Your task to perform on an android device: Go to accessibility settings Image 0: 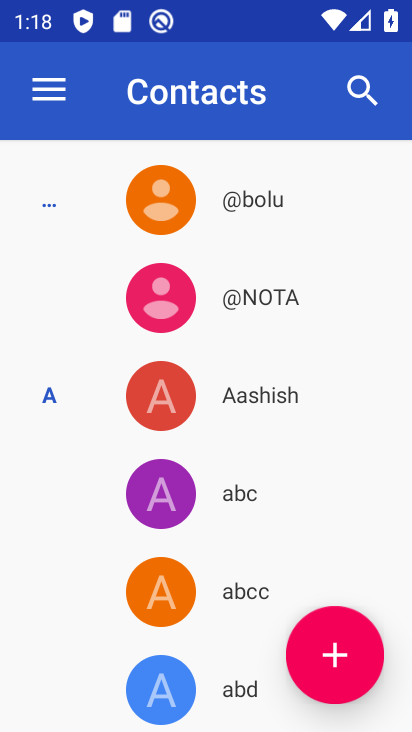
Step 0: drag from (190, 551) to (306, 140)
Your task to perform on an android device: Go to accessibility settings Image 1: 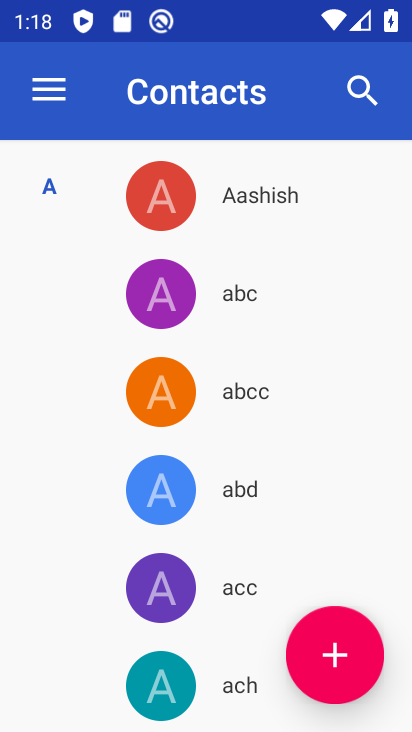
Step 1: press home button
Your task to perform on an android device: Go to accessibility settings Image 2: 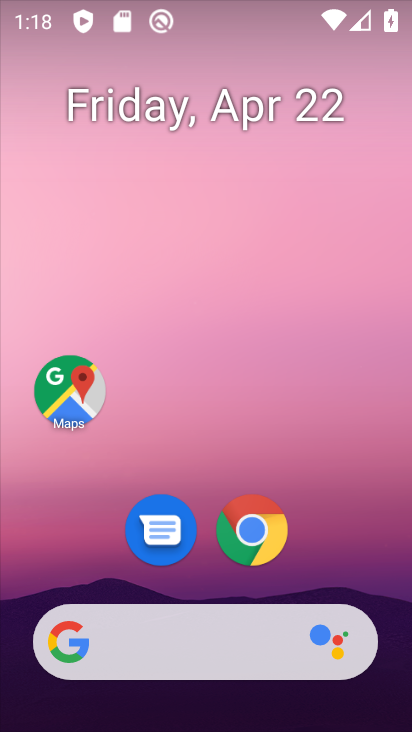
Step 2: drag from (174, 638) to (302, 99)
Your task to perform on an android device: Go to accessibility settings Image 3: 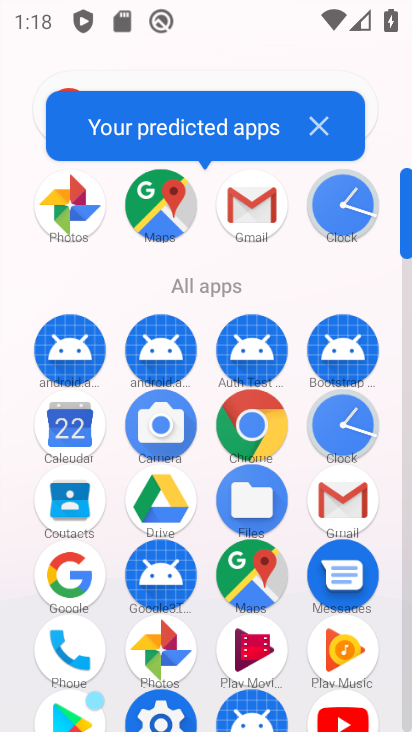
Step 3: drag from (255, 644) to (172, 205)
Your task to perform on an android device: Go to accessibility settings Image 4: 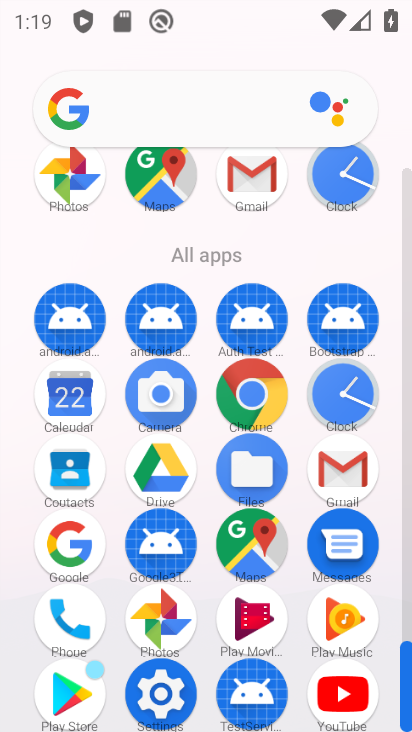
Step 4: click (174, 681)
Your task to perform on an android device: Go to accessibility settings Image 5: 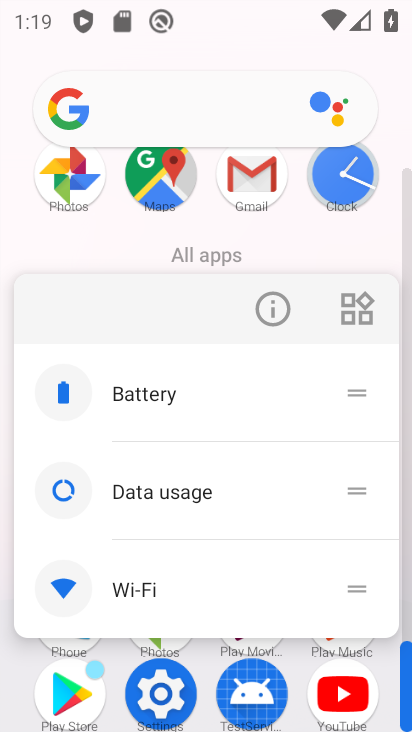
Step 5: click (150, 697)
Your task to perform on an android device: Go to accessibility settings Image 6: 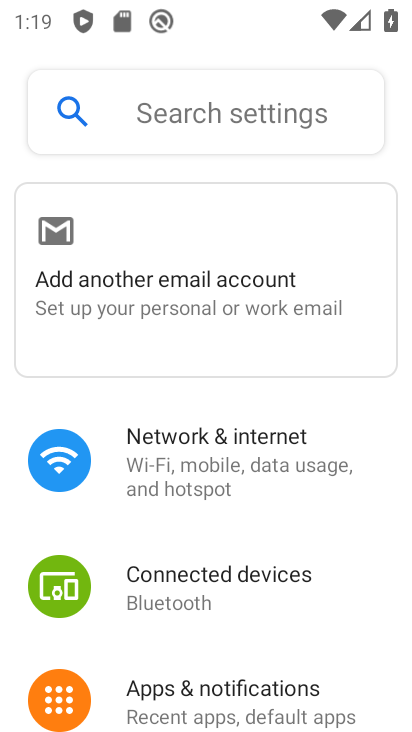
Step 6: drag from (281, 650) to (300, 150)
Your task to perform on an android device: Go to accessibility settings Image 7: 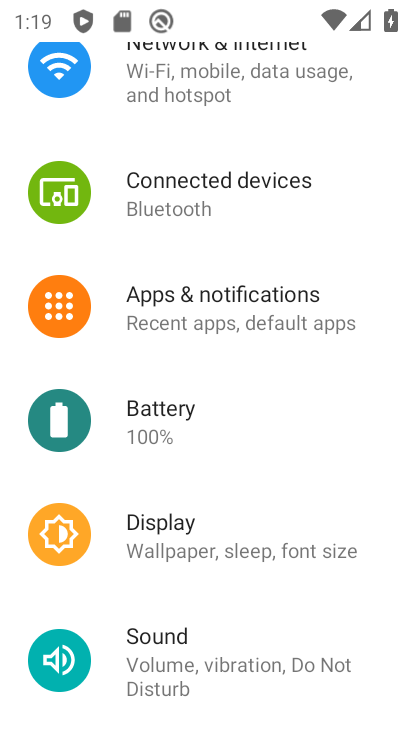
Step 7: drag from (275, 597) to (212, 78)
Your task to perform on an android device: Go to accessibility settings Image 8: 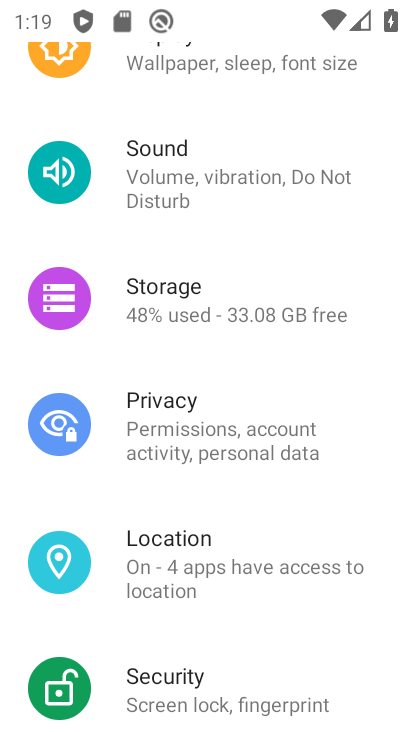
Step 8: drag from (312, 572) to (256, 66)
Your task to perform on an android device: Go to accessibility settings Image 9: 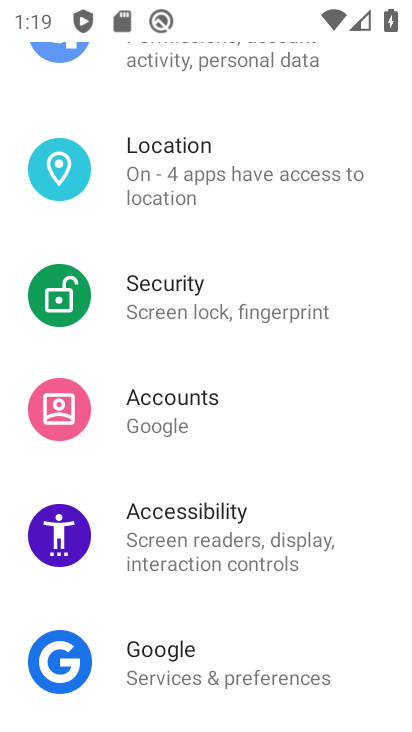
Step 9: click (257, 522)
Your task to perform on an android device: Go to accessibility settings Image 10: 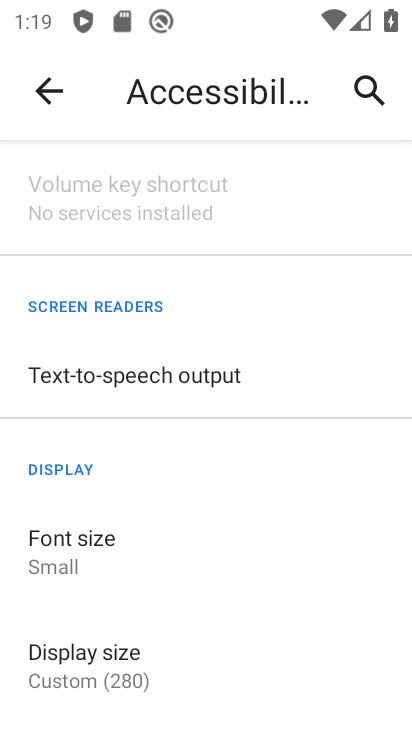
Step 10: task complete